Your task to perform on an android device: Play the last video I watched on Youtube Image 0: 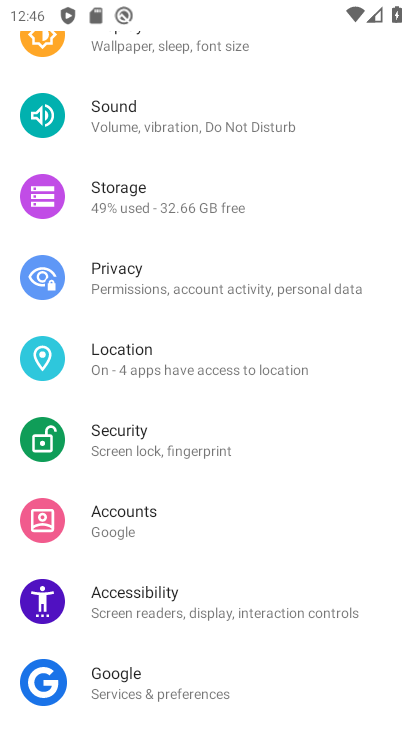
Step 0: press home button
Your task to perform on an android device: Play the last video I watched on Youtube Image 1: 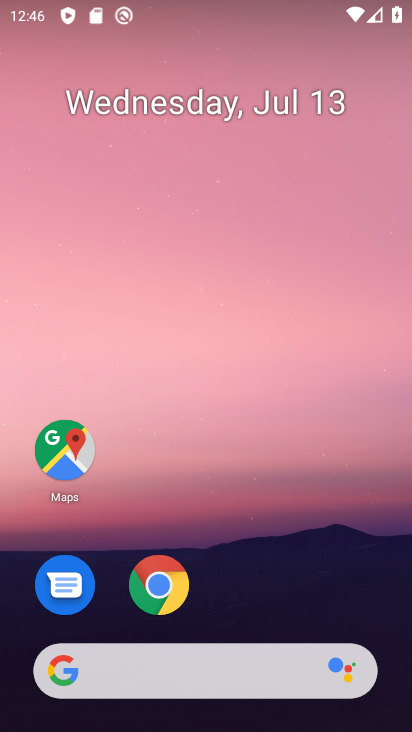
Step 1: drag from (165, 654) to (384, 174)
Your task to perform on an android device: Play the last video I watched on Youtube Image 2: 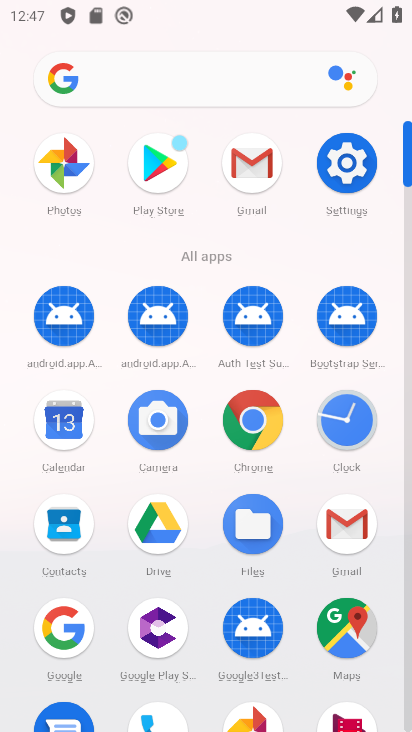
Step 2: drag from (293, 609) to (411, 324)
Your task to perform on an android device: Play the last video I watched on Youtube Image 3: 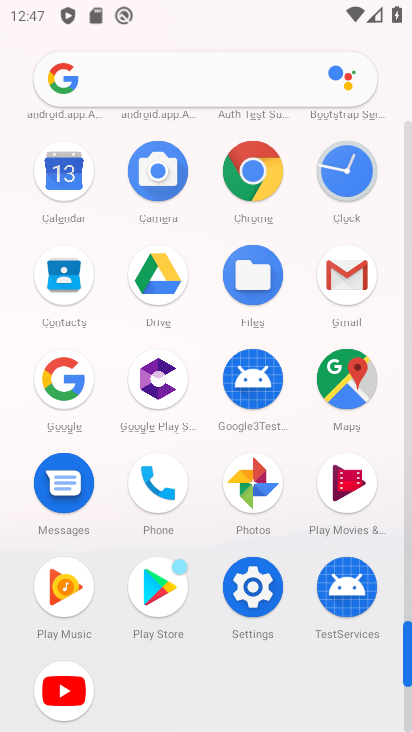
Step 3: drag from (264, 668) to (379, 314)
Your task to perform on an android device: Play the last video I watched on Youtube Image 4: 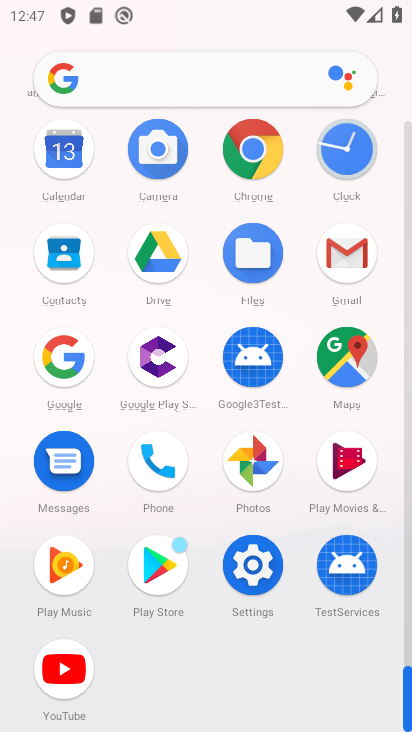
Step 4: click (66, 666)
Your task to perform on an android device: Play the last video I watched on Youtube Image 5: 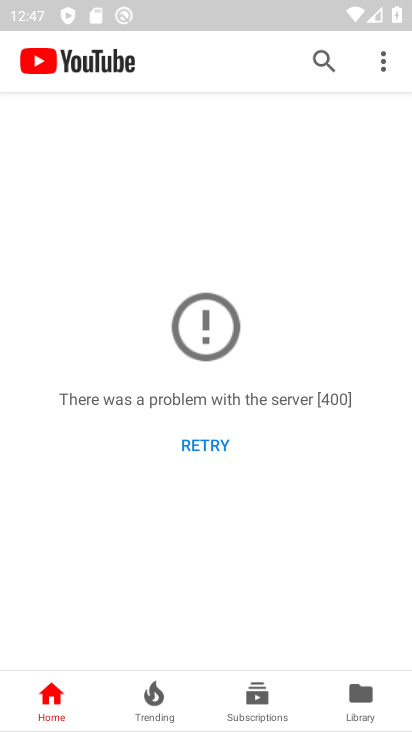
Step 5: click (218, 444)
Your task to perform on an android device: Play the last video I watched on Youtube Image 6: 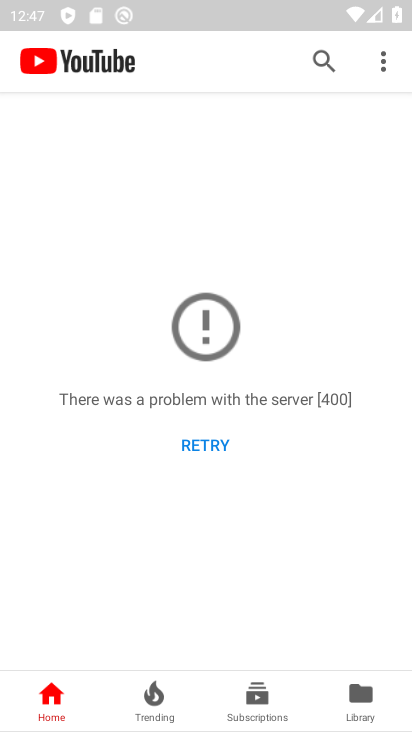
Step 6: click (209, 445)
Your task to perform on an android device: Play the last video I watched on Youtube Image 7: 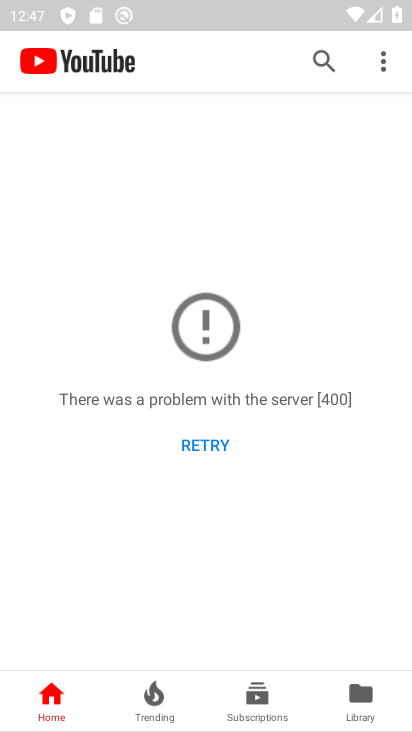
Step 7: click (209, 445)
Your task to perform on an android device: Play the last video I watched on Youtube Image 8: 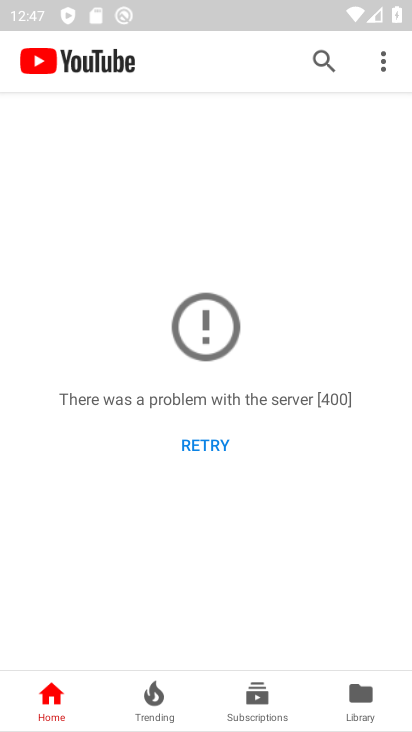
Step 8: click (360, 698)
Your task to perform on an android device: Play the last video I watched on Youtube Image 9: 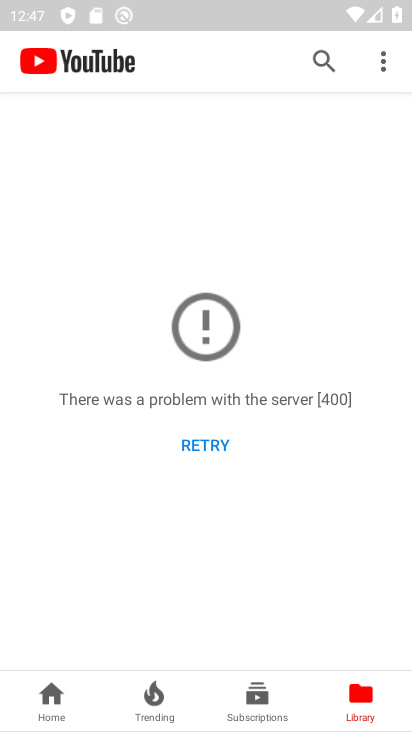
Step 9: click (194, 445)
Your task to perform on an android device: Play the last video I watched on Youtube Image 10: 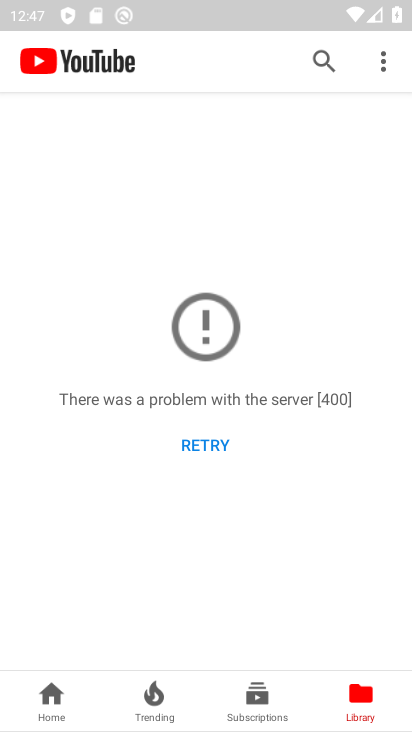
Step 10: task complete